Your task to perform on an android device: check google app version Image 0: 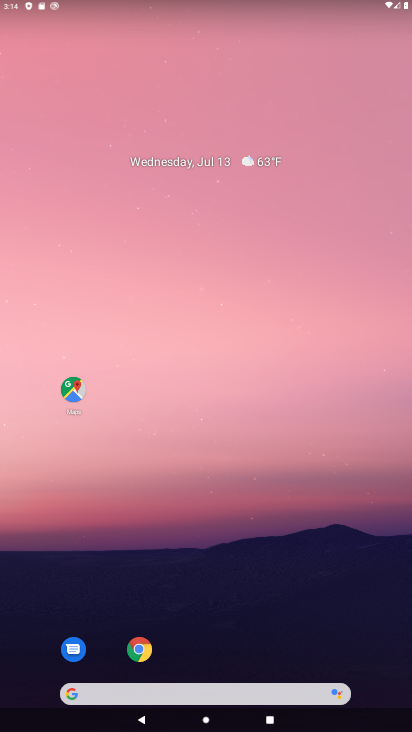
Step 0: drag from (214, 605) to (254, 50)
Your task to perform on an android device: check google app version Image 1: 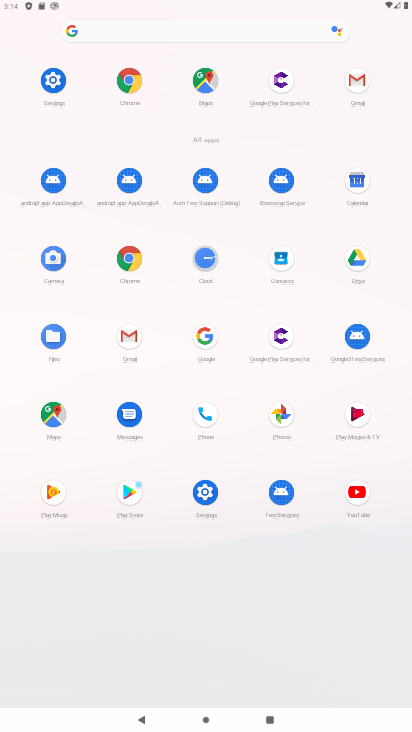
Step 1: click (208, 339)
Your task to perform on an android device: check google app version Image 2: 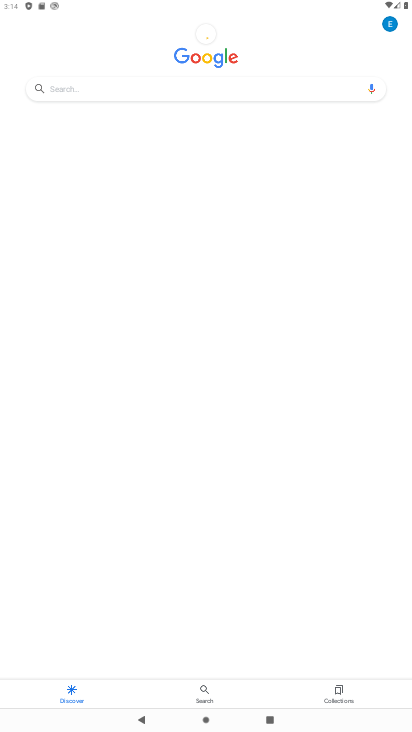
Step 2: click (392, 26)
Your task to perform on an android device: check google app version Image 3: 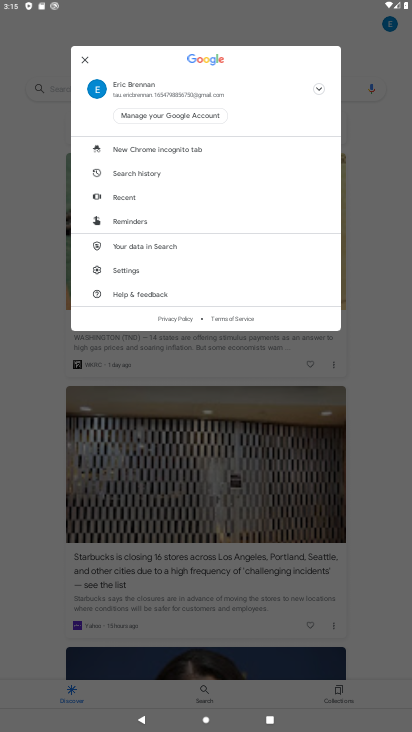
Step 3: click (145, 267)
Your task to perform on an android device: check google app version Image 4: 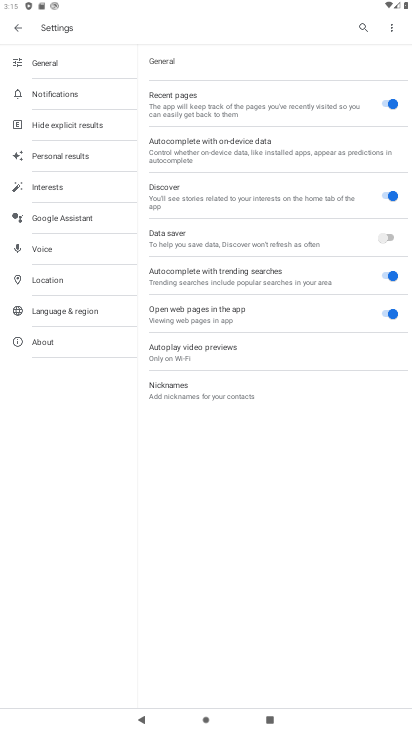
Step 4: click (63, 343)
Your task to perform on an android device: check google app version Image 5: 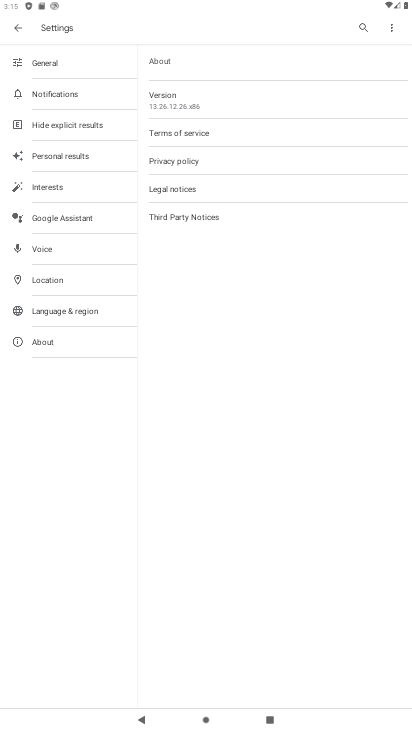
Step 5: click (212, 103)
Your task to perform on an android device: check google app version Image 6: 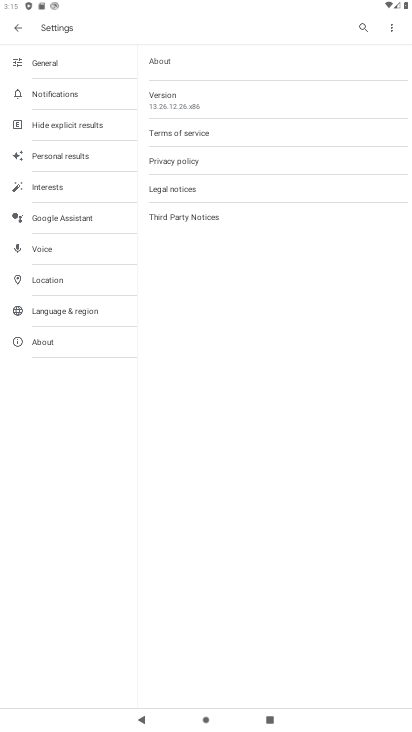
Step 6: task complete